Your task to perform on an android device: Open Wikipedia Image 0: 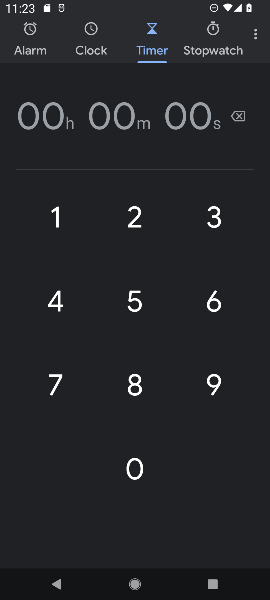
Step 0: press back button
Your task to perform on an android device: Open Wikipedia Image 1: 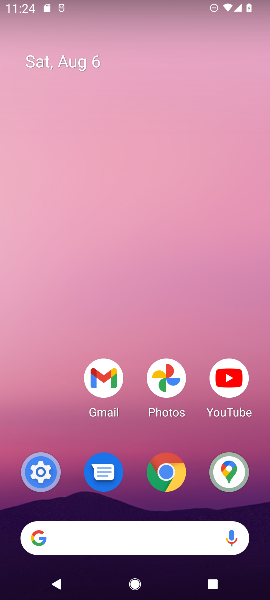
Step 1: drag from (178, 511) to (65, 35)
Your task to perform on an android device: Open Wikipedia Image 2: 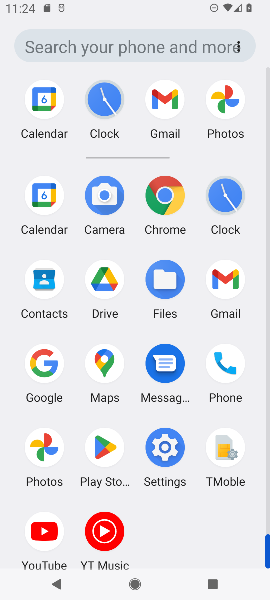
Step 2: click (164, 197)
Your task to perform on an android device: Open Wikipedia Image 3: 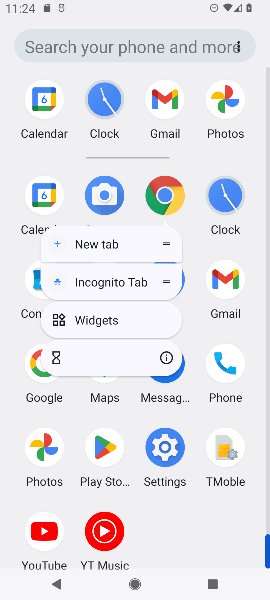
Step 3: click (164, 197)
Your task to perform on an android device: Open Wikipedia Image 4: 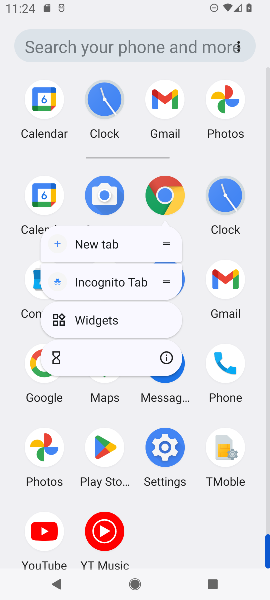
Step 4: click (164, 197)
Your task to perform on an android device: Open Wikipedia Image 5: 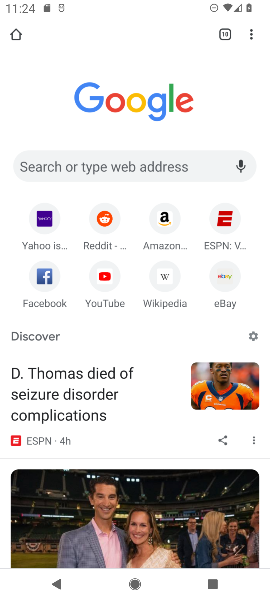
Step 5: click (164, 197)
Your task to perform on an android device: Open Wikipedia Image 6: 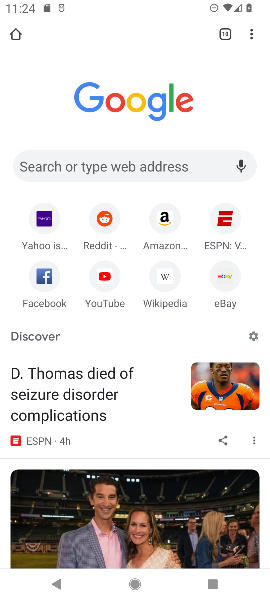
Step 6: click (160, 275)
Your task to perform on an android device: Open Wikipedia Image 7: 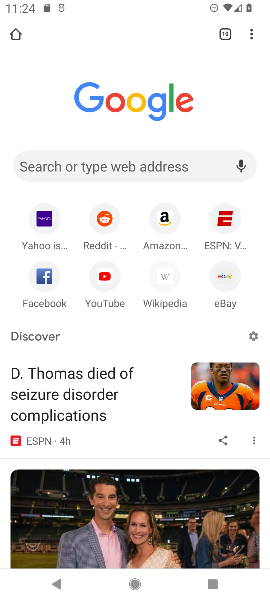
Step 7: click (163, 273)
Your task to perform on an android device: Open Wikipedia Image 8: 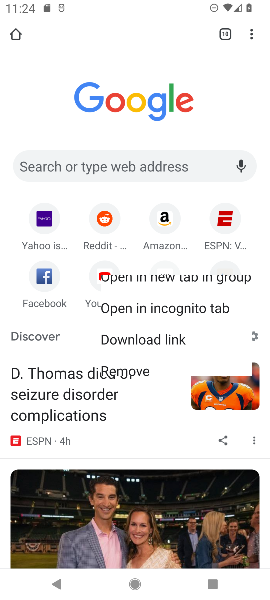
Step 8: click (163, 273)
Your task to perform on an android device: Open Wikipedia Image 9: 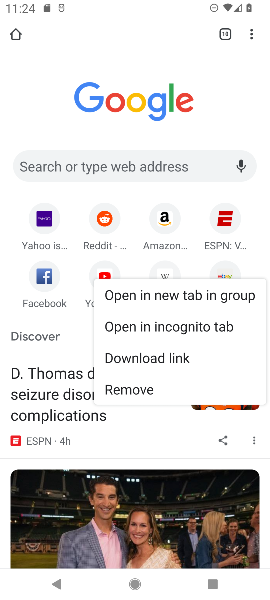
Step 9: click (164, 273)
Your task to perform on an android device: Open Wikipedia Image 10: 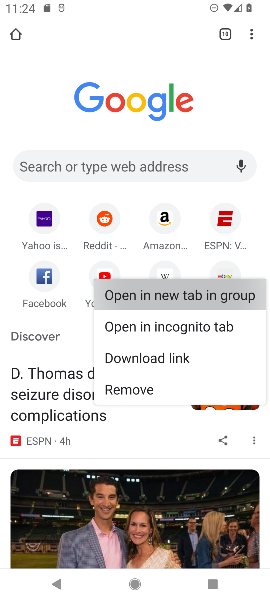
Step 10: click (167, 273)
Your task to perform on an android device: Open Wikipedia Image 11: 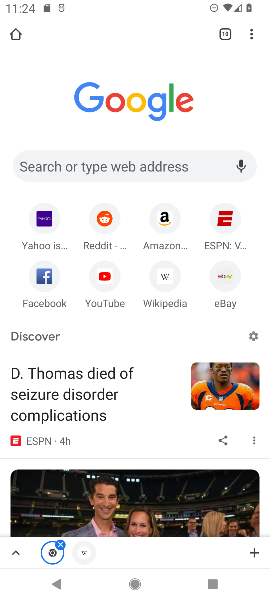
Step 11: click (165, 278)
Your task to perform on an android device: Open Wikipedia Image 12: 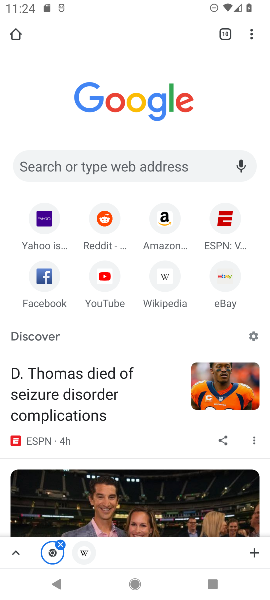
Step 12: click (165, 278)
Your task to perform on an android device: Open Wikipedia Image 13: 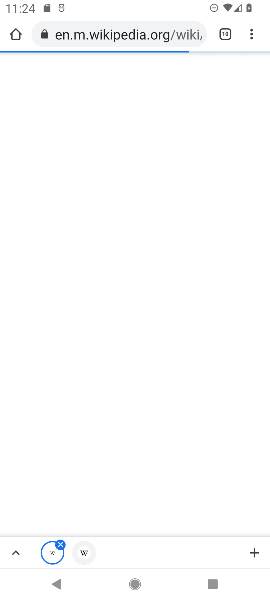
Step 13: click (168, 304)
Your task to perform on an android device: Open Wikipedia Image 14: 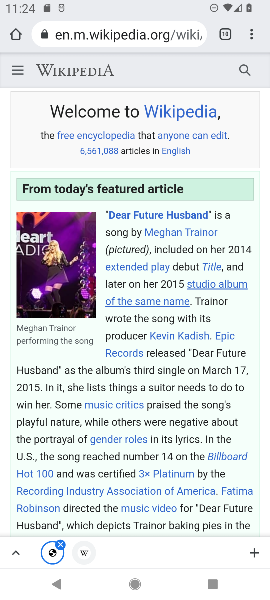
Step 14: task complete